Your task to perform on an android device: turn on showing notifications on the lock screen Image 0: 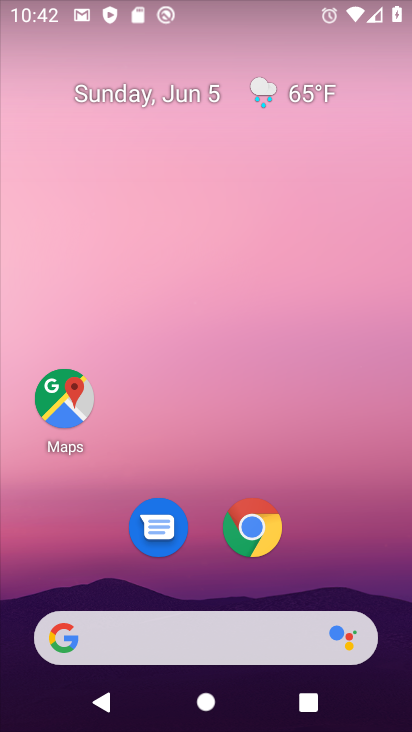
Step 0: drag from (113, 457) to (300, 72)
Your task to perform on an android device: turn on showing notifications on the lock screen Image 1: 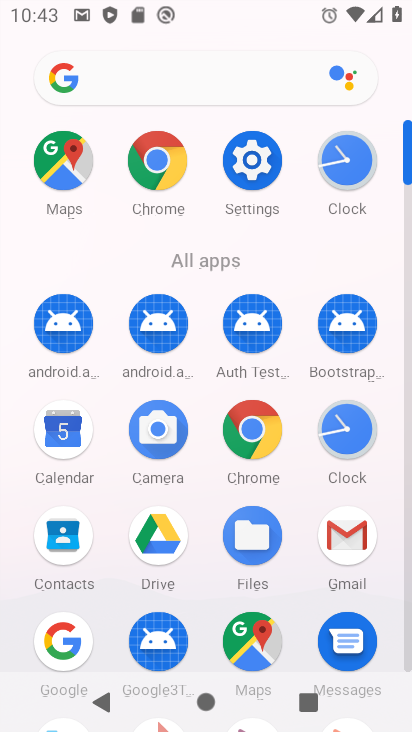
Step 1: click (253, 155)
Your task to perform on an android device: turn on showing notifications on the lock screen Image 2: 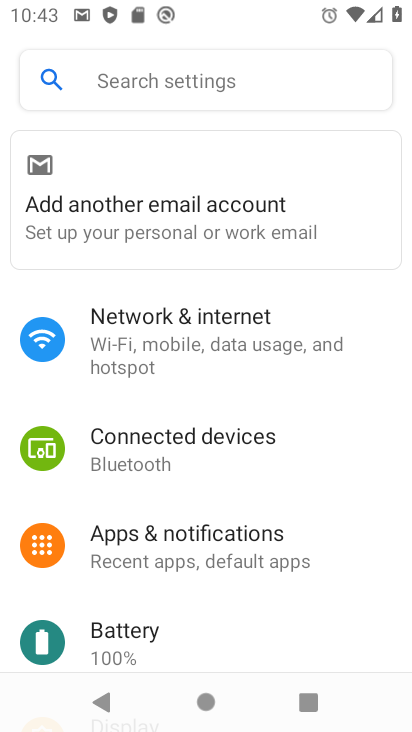
Step 2: drag from (13, 587) to (300, 156)
Your task to perform on an android device: turn on showing notifications on the lock screen Image 3: 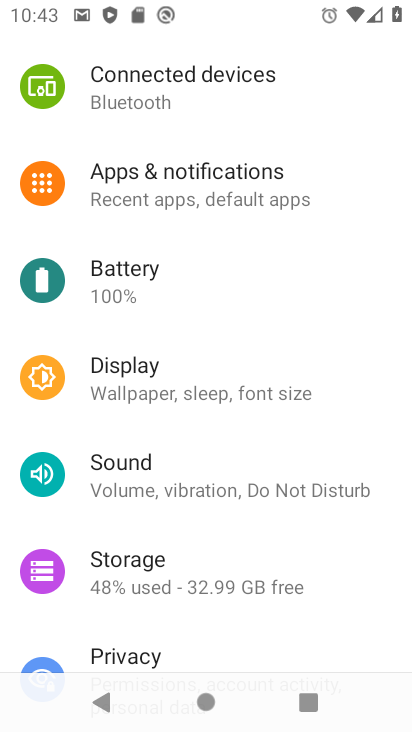
Step 3: click (138, 202)
Your task to perform on an android device: turn on showing notifications on the lock screen Image 4: 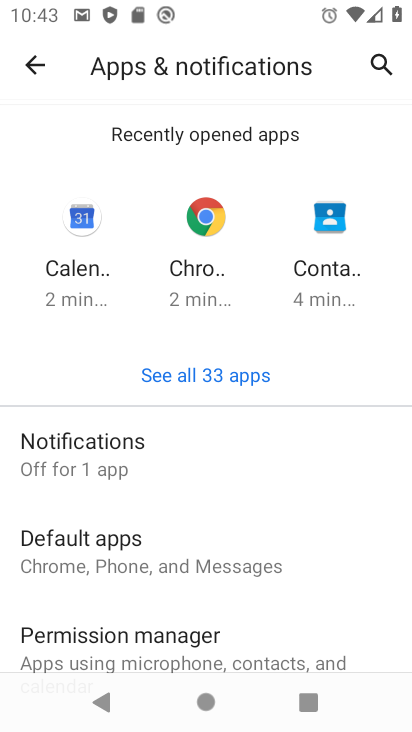
Step 4: click (51, 461)
Your task to perform on an android device: turn on showing notifications on the lock screen Image 5: 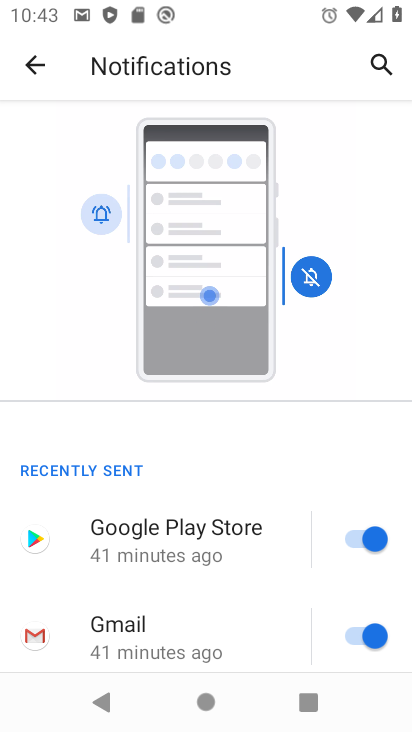
Step 5: drag from (32, 416) to (143, 209)
Your task to perform on an android device: turn on showing notifications on the lock screen Image 6: 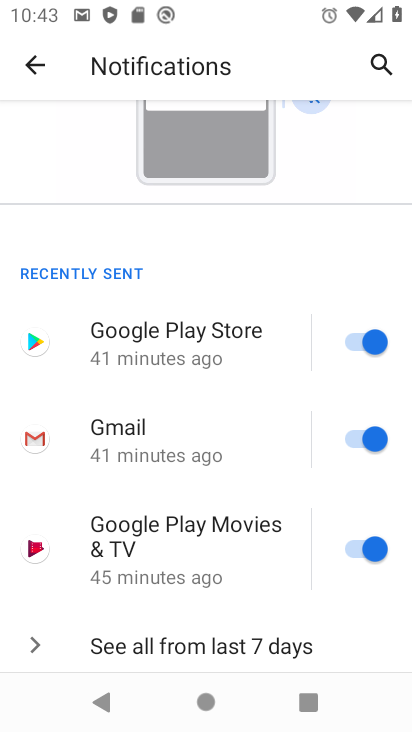
Step 6: press home button
Your task to perform on an android device: turn on showing notifications on the lock screen Image 7: 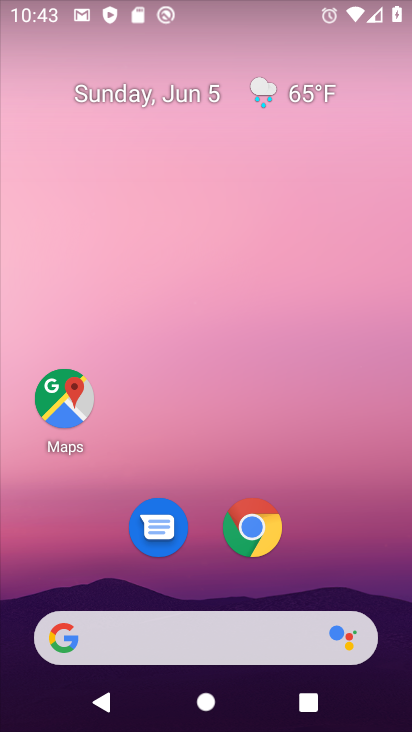
Step 7: drag from (19, 553) to (267, 140)
Your task to perform on an android device: turn on showing notifications on the lock screen Image 8: 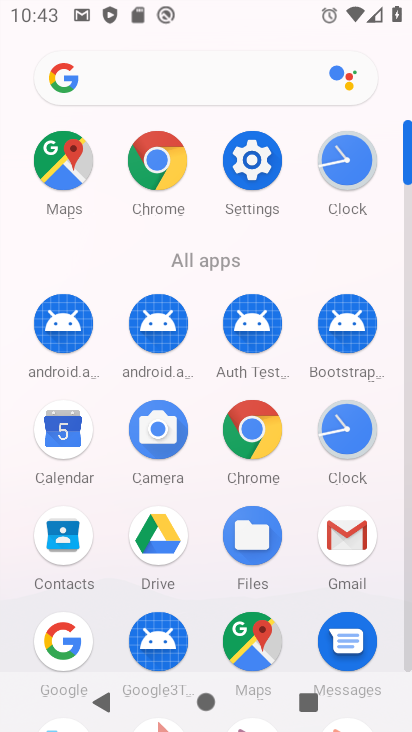
Step 8: click (238, 173)
Your task to perform on an android device: turn on showing notifications on the lock screen Image 9: 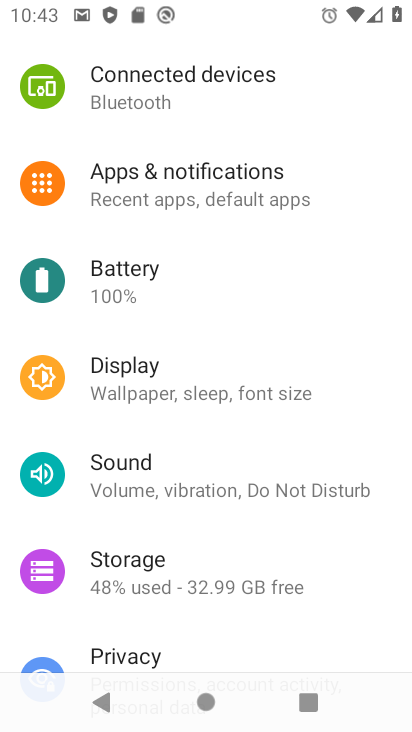
Step 9: click (249, 192)
Your task to perform on an android device: turn on showing notifications on the lock screen Image 10: 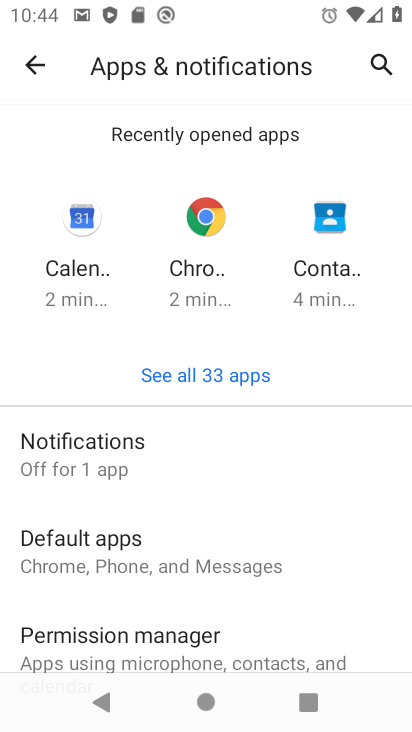
Step 10: drag from (97, 676) to (329, 216)
Your task to perform on an android device: turn on showing notifications on the lock screen Image 11: 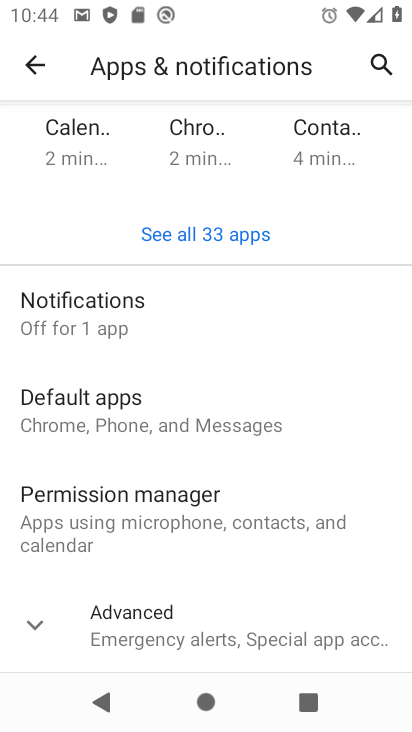
Step 11: click (146, 313)
Your task to perform on an android device: turn on showing notifications on the lock screen Image 12: 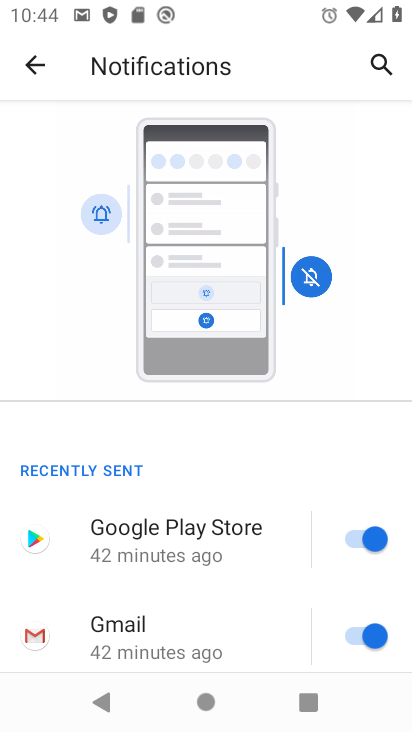
Step 12: drag from (31, 490) to (197, 189)
Your task to perform on an android device: turn on showing notifications on the lock screen Image 13: 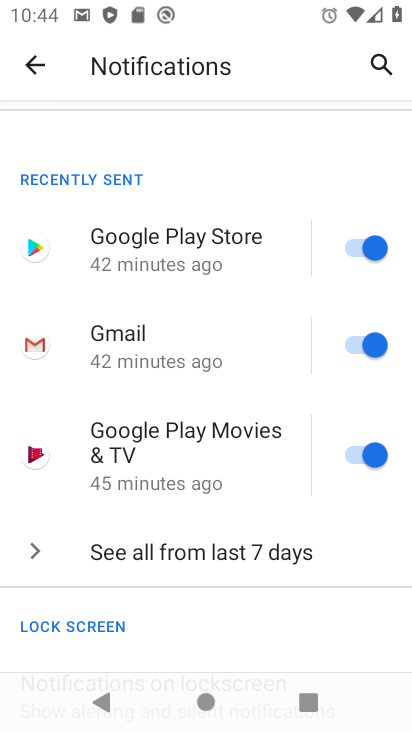
Step 13: drag from (16, 515) to (224, 176)
Your task to perform on an android device: turn on showing notifications on the lock screen Image 14: 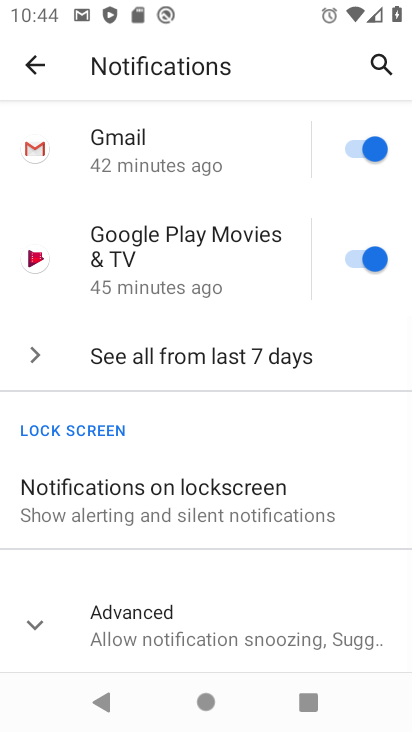
Step 14: click (126, 497)
Your task to perform on an android device: turn on showing notifications on the lock screen Image 15: 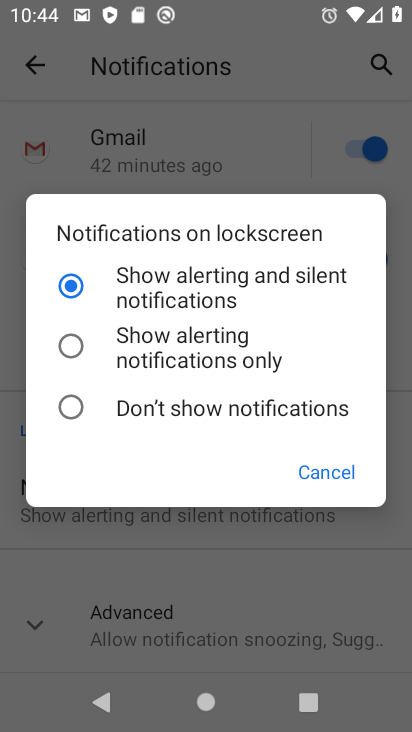
Step 15: task complete